Your task to perform on an android device: find which apps use the phone's location Image 0: 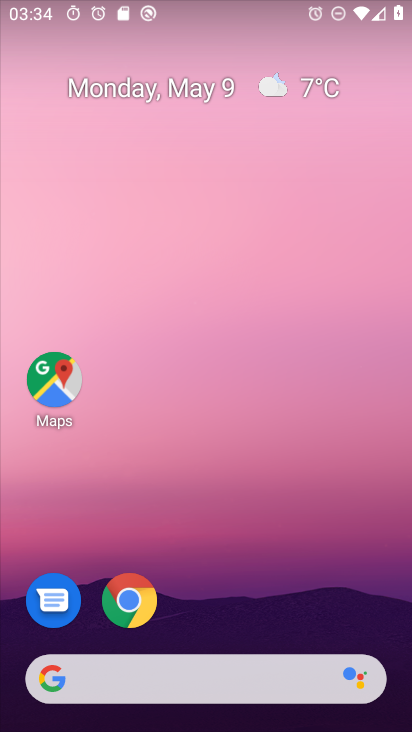
Step 0: drag from (251, 666) to (254, 298)
Your task to perform on an android device: find which apps use the phone's location Image 1: 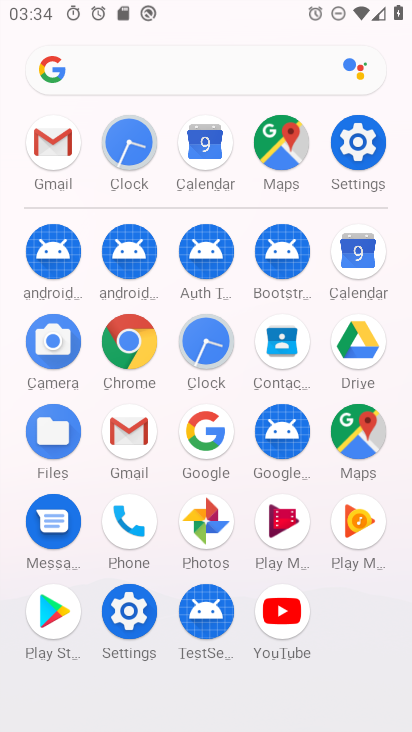
Step 1: click (124, 615)
Your task to perform on an android device: find which apps use the phone's location Image 2: 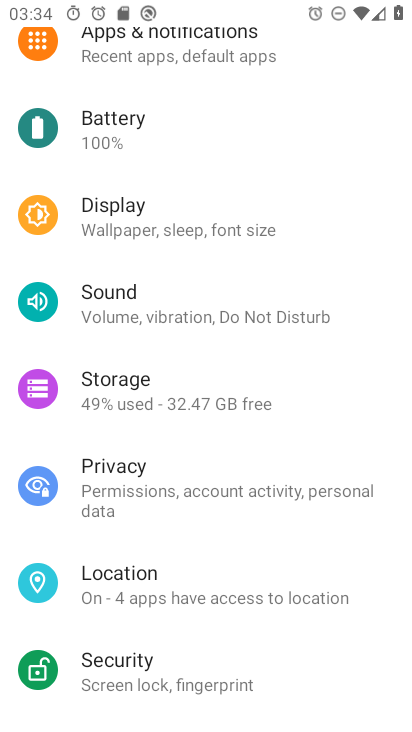
Step 2: click (120, 587)
Your task to perform on an android device: find which apps use the phone's location Image 3: 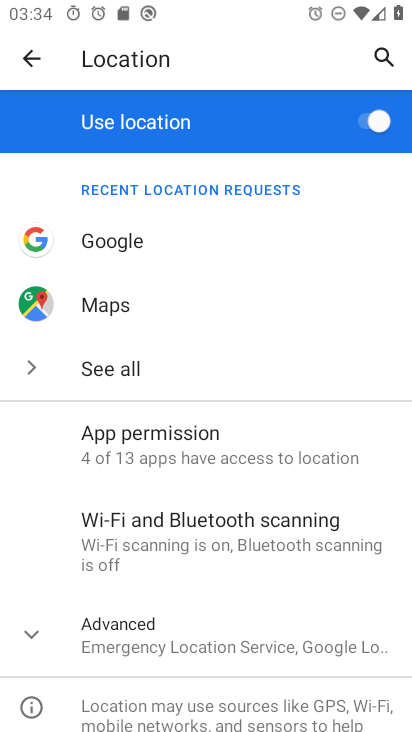
Step 3: click (180, 428)
Your task to perform on an android device: find which apps use the phone's location Image 4: 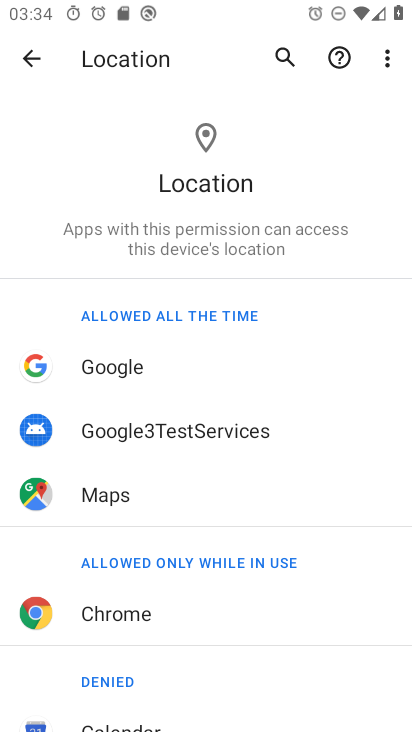
Step 4: task complete